Your task to perform on an android device: Search for Italian restaurants on Maps Image 0: 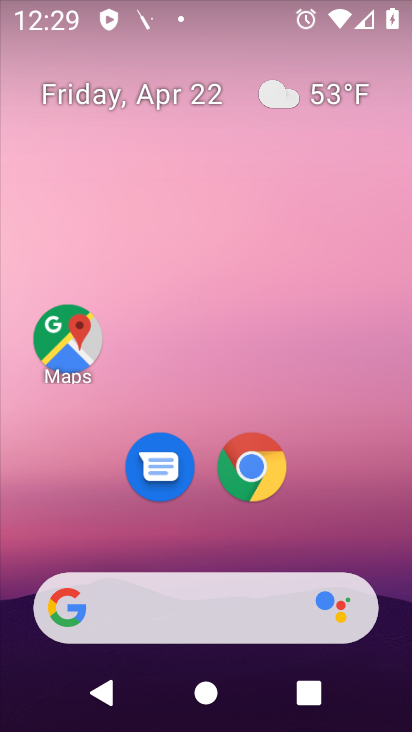
Step 0: click (66, 341)
Your task to perform on an android device: Search for Italian restaurants on Maps Image 1: 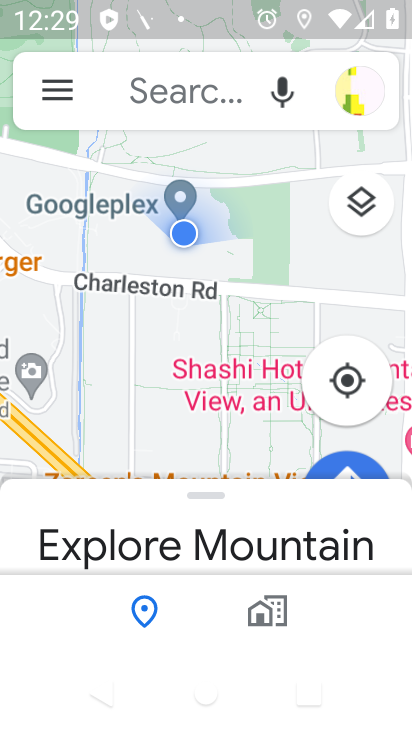
Step 1: click (154, 93)
Your task to perform on an android device: Search for Italian restaurants on Maps Image 2: 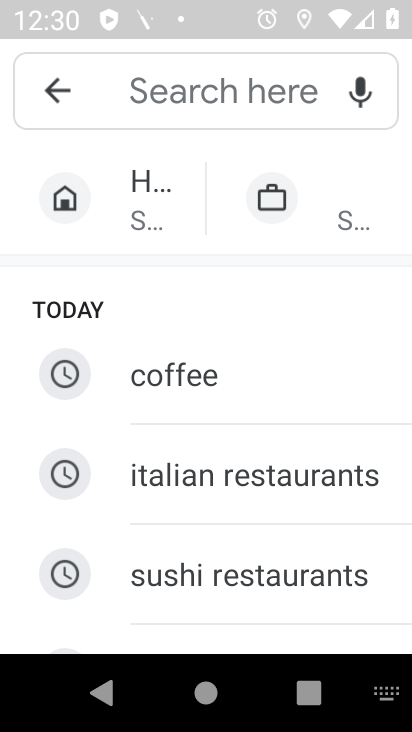
Step 2: type "italian restaurants"
Your task to perform on an android device: Search for Italian restaurants on Maps Image 3: 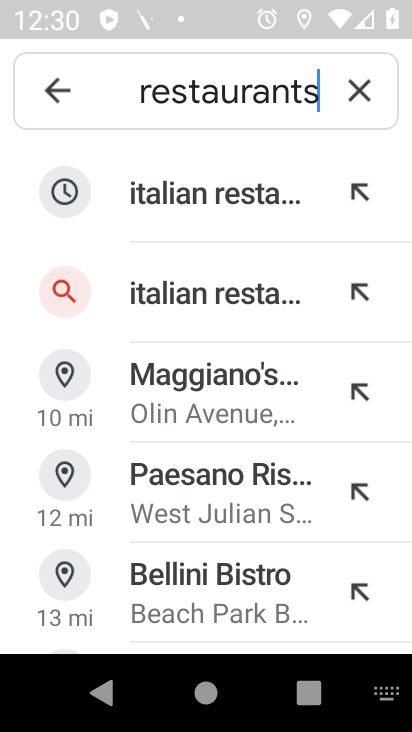
Step 3: click (181, 194)
Your task to perform on an android device: Search for Italian restaurants on Maps Image 4: 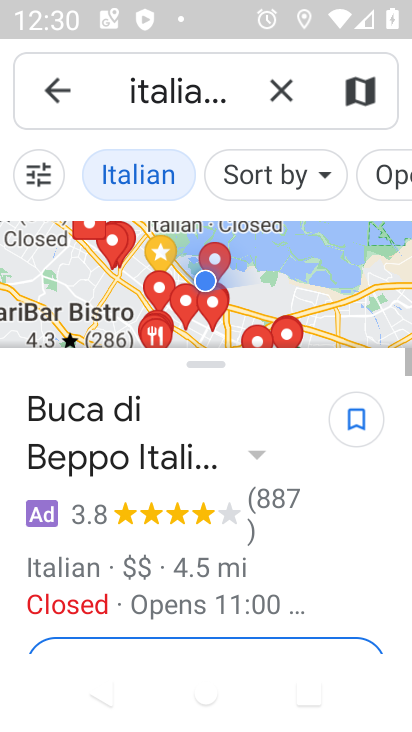
Step 4: task complete